Your task to perform on an android device: turn on sleep mode Image 0: 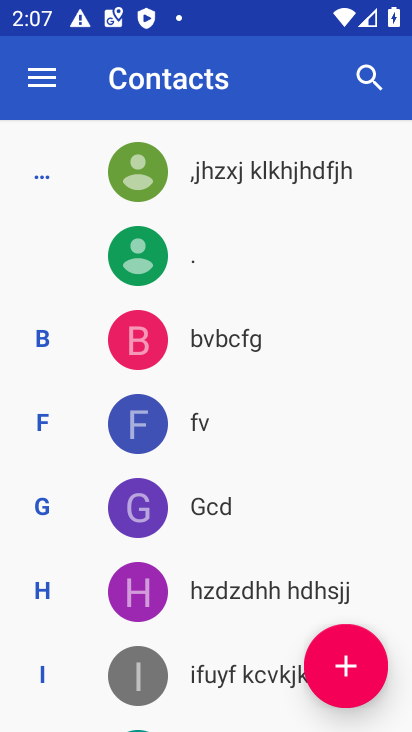
Step 0: press home button
Your task to perform on an android device: turn on sleep mode Image 1: 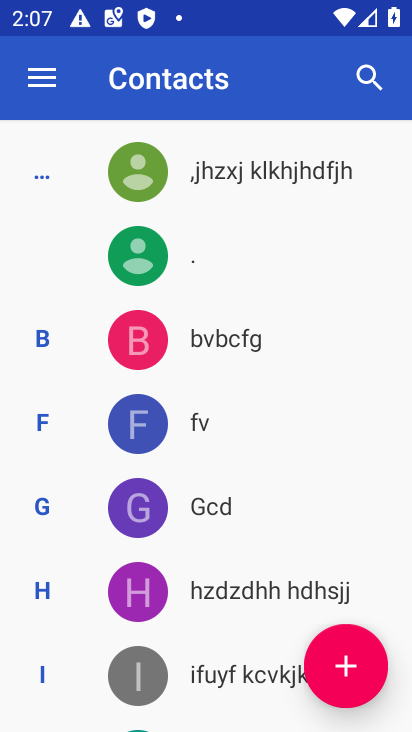
Step 1: press home button
Your task to perform on an android device: turn on sleep mode Image 2: 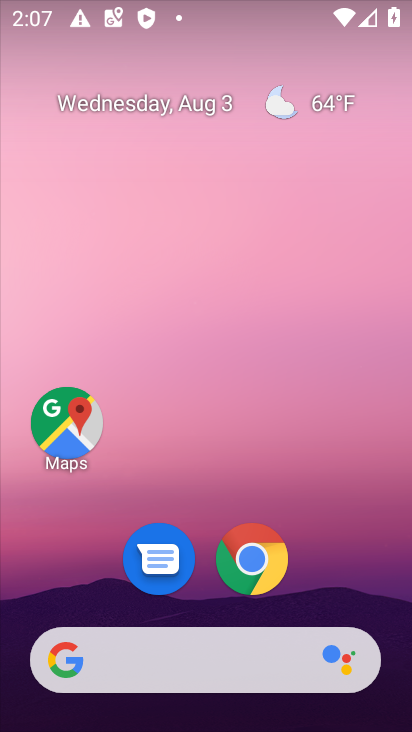
Step 2: drag from (195, 292) to (194, 64)
Your task to perform on an android device: turn on sleep mode Image 3: 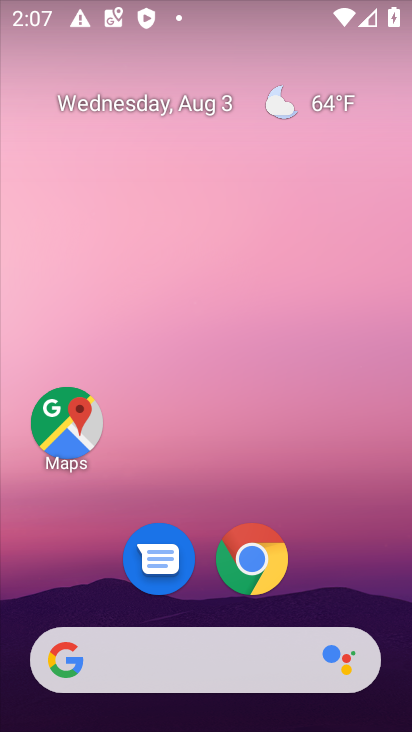
Step 3: drag from (216, 587) to (213, 47)
Your task to perform on an android device: turn on sleep mode Image 4: 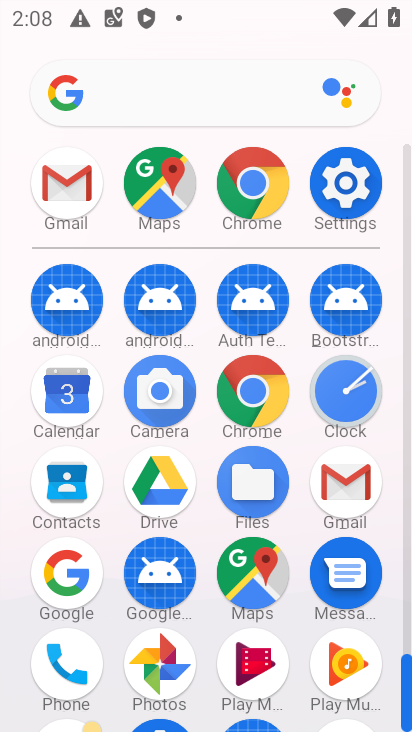
Step 4: click (339, 169)
Your task to perform on an android device: turn on sleep mode Image 5: 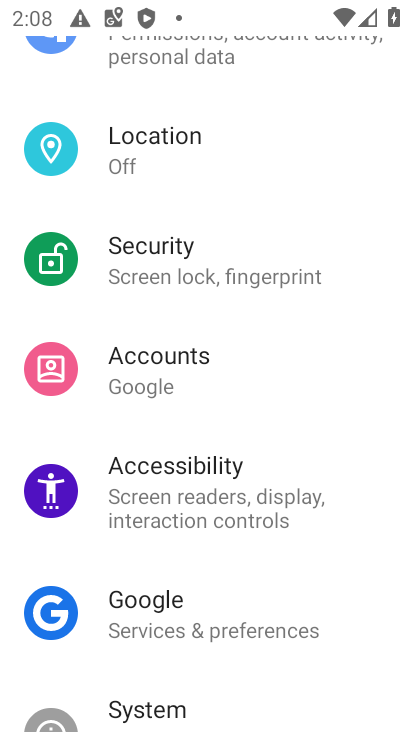
Step 5: drag from (158, 147) to (169, 526)
Your task to perform on an android device: turn on sleep mode Image 6: 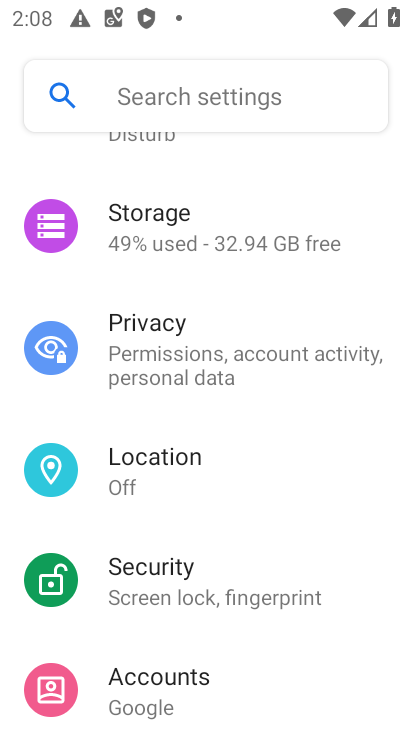
Step 6: drag from (192, 183) to (177, 583)
Your task to perform on an android device: turn on sleep mode Image 7: 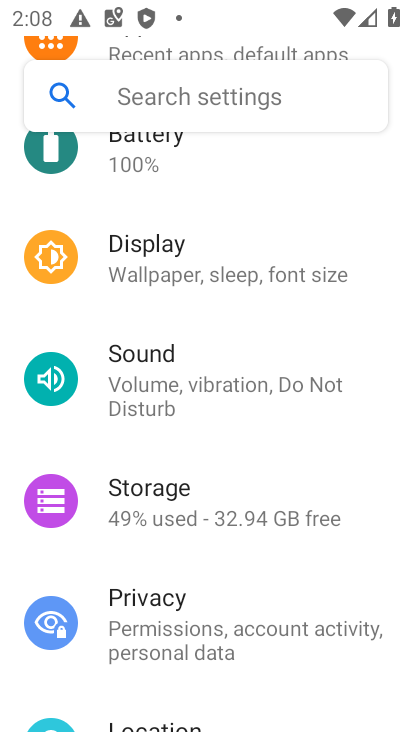
Step 7: drag from (223, 190) to (209, 547)
Your task to perform on an android device: turn on sleep mode Image 8: 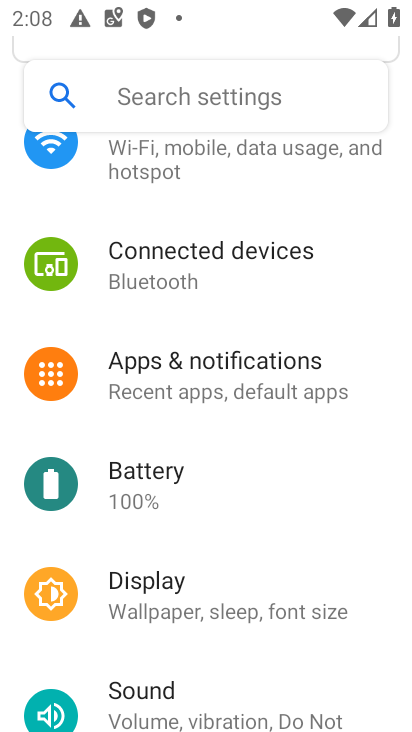
Step 8: drag from (217, 193) to (217, 531)
Your task to perform on an android device: turn on sleep mode Image 9: 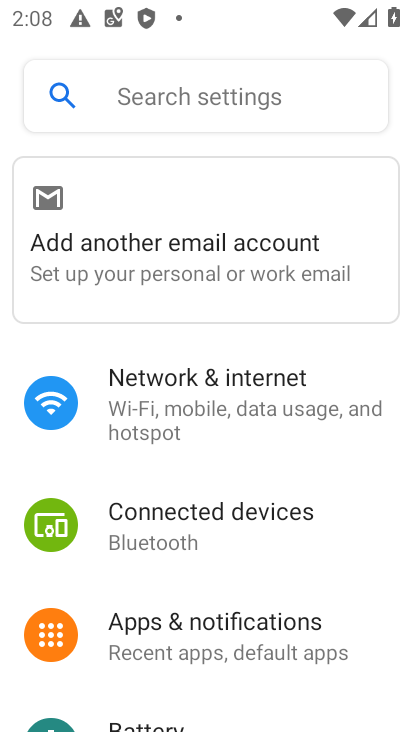
Step 9: drag from (203, 673) to (224, 329)
Your task to perform on an android device: turn on sleep mode Image 10: 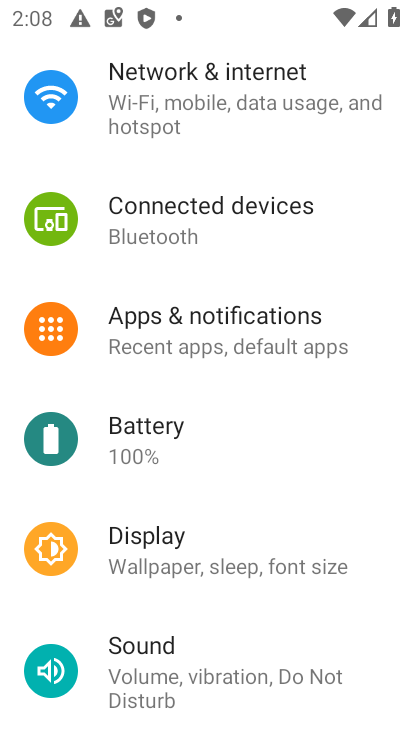
Step 10: click (225, 564)
Your task to perform on an android device: turn on sleep mode Image 11: 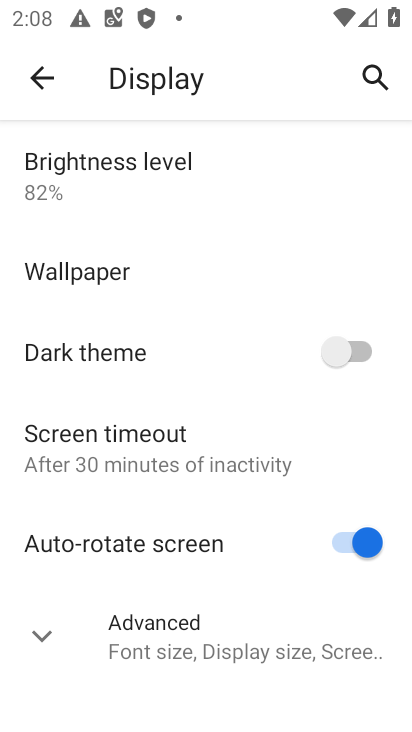
Step 11: task complete